Your task to perform on an android device: Go to Google maps Image 0: 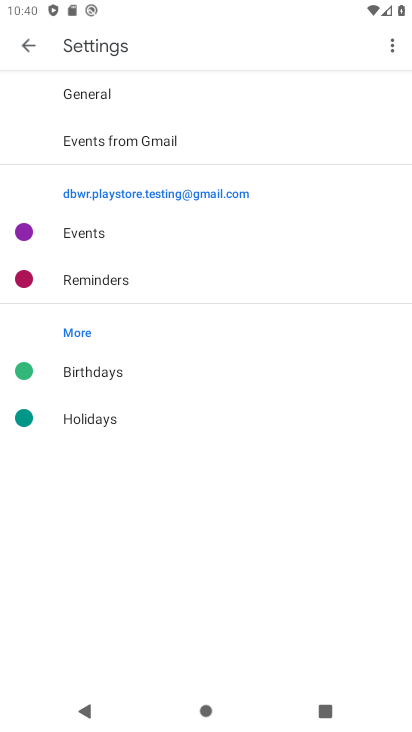
Step 0: press home button
Your task to perform on an android device: Go to Google maps Image 1: 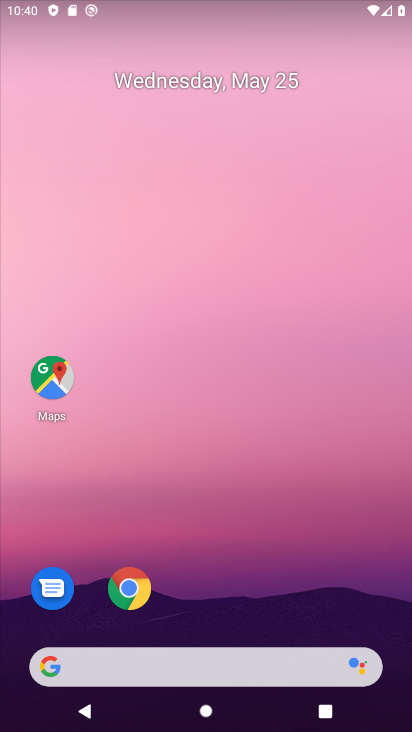
Step 1: click (49, 375)
Your task to perform on an android device: Go to Google maps Image 2: 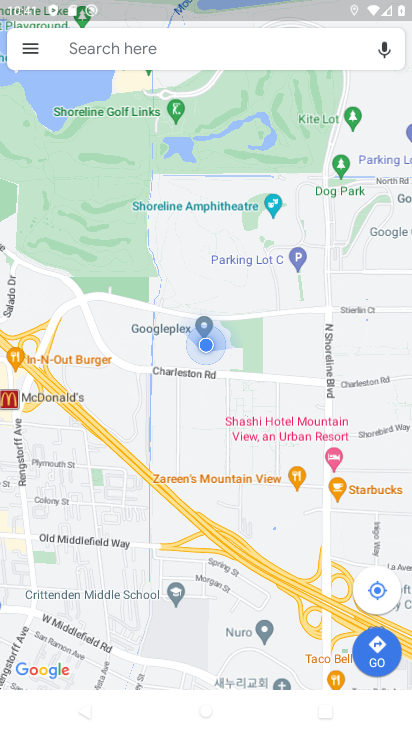
Step 2: task complete